Your task to perform on an android device: Open accessibility settings Image 0: 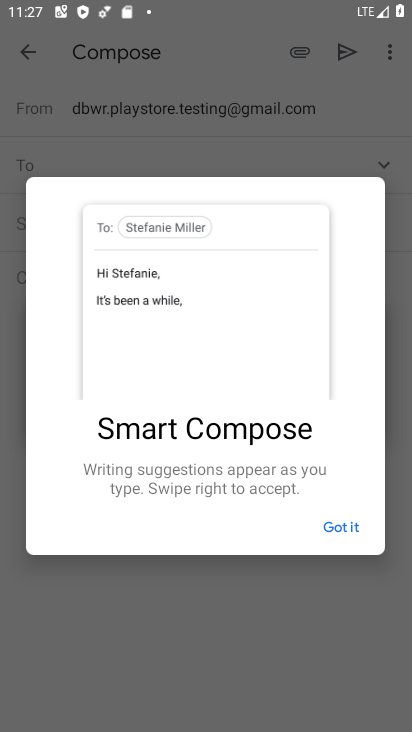
Step 0: press home button
Your task to perform on an android device: Open accessibility settings Image 1: 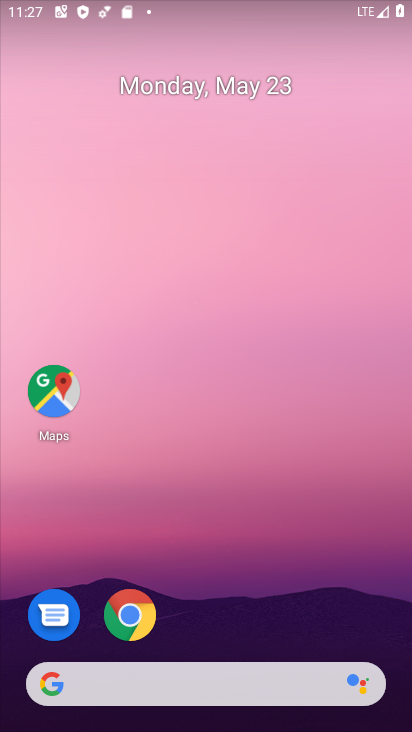
Step 1: drag from (194, 626) to (139, 49)
Your task to perform on an android device: Open accessibility settings Image 2: 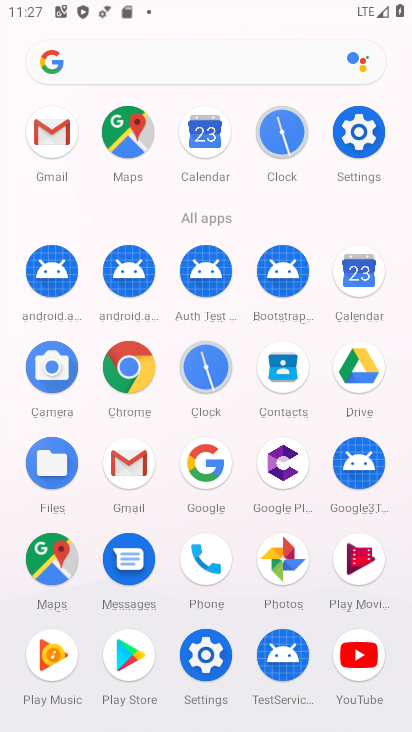
Step 2: click (358, 120)
Your task to perform on an android device: Open accessibility settings Image 3: 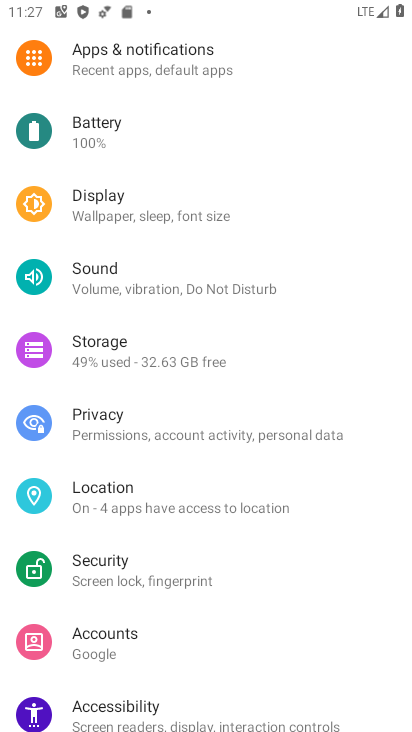
Step 3: drag from (128, 715) to (145, 275)
Your task to perform on an android device: Open accessibility settings Image 4: 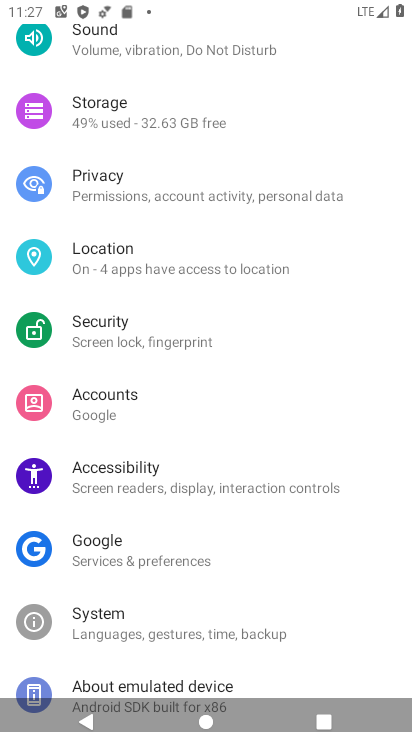
Step 4: click (135, 478)
Your task to perform on an android device: Open accessibility settings Image 5: 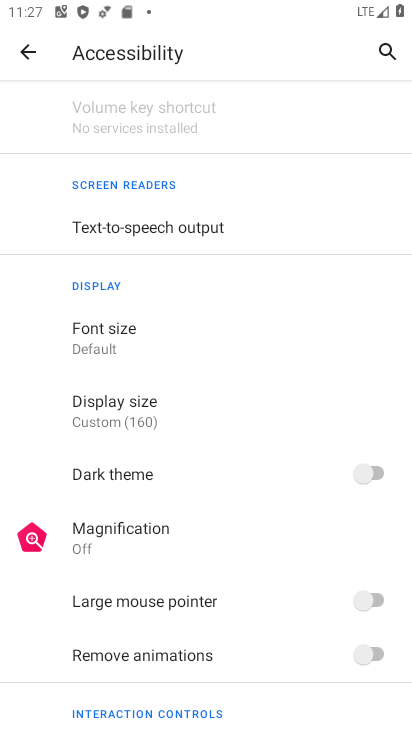
Step 5: task complete